Your task to perform on an android device: Show me popular games on the Play Store Image 0: 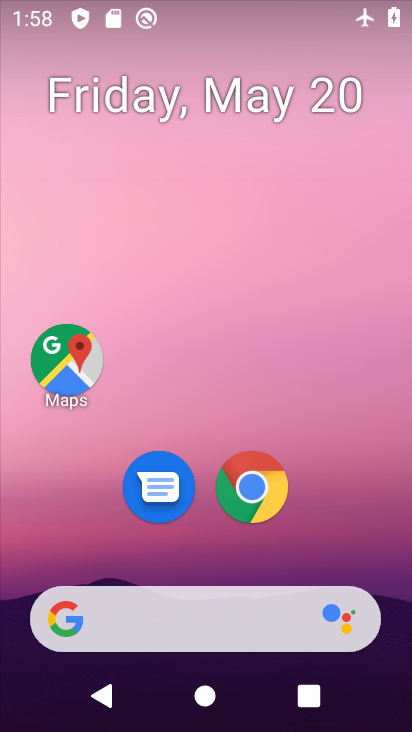
Step 0: drag from (362, 702) to (186, 280)
Your task to perform on an android device: Show me popular games on the Play Store Image 1: 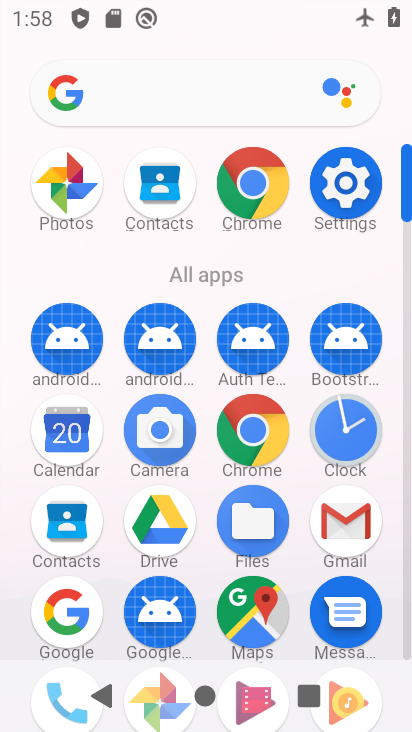
Step 1: drag from (205, 625) to (213, 150)
Your task to perform on an android device: Show me popular games on the Play Store Image 2: 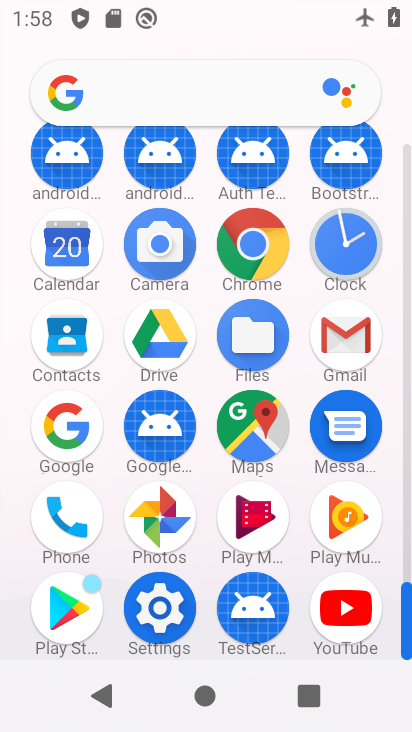
Step 2: drag from (210, 419) to (152, 170)
Your task to perform on an android device: Show me popular games on the Play Store Image 3: 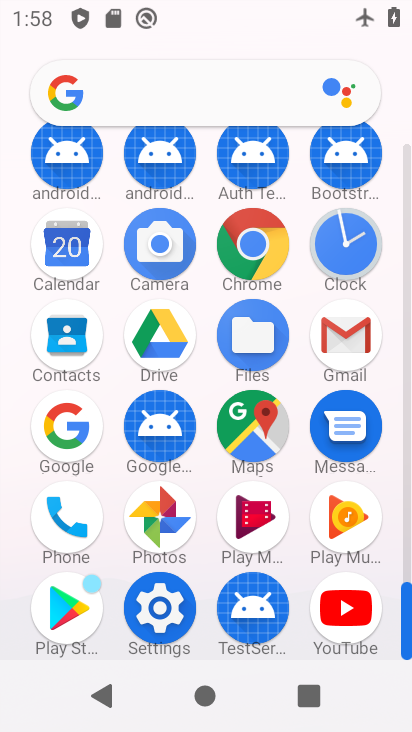
Step 3: click (78, 605)
Your task to perform on an android device: Show me popular games on the Play Store Image 4: 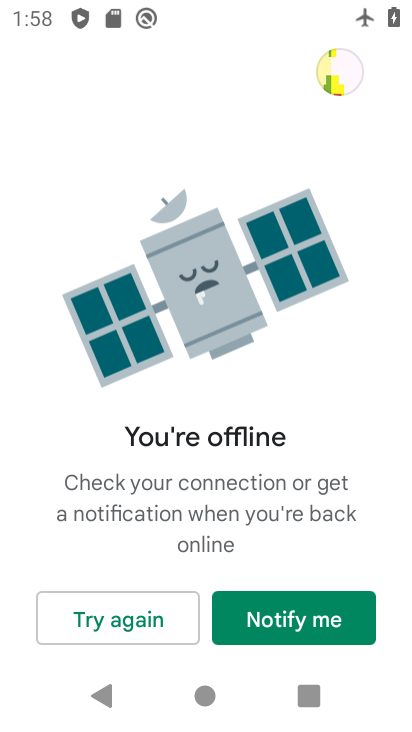
Step 4: click (294, 619)
Your task to perform on an android device: Show me popular games on the Play Store Image 5: 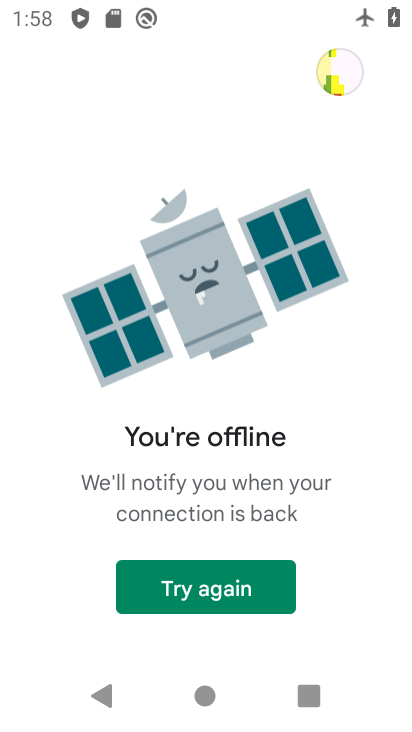
Step 5: click (231, 584)
Your task to perform on an android device: Show me popular games on the Play Store Image 6: 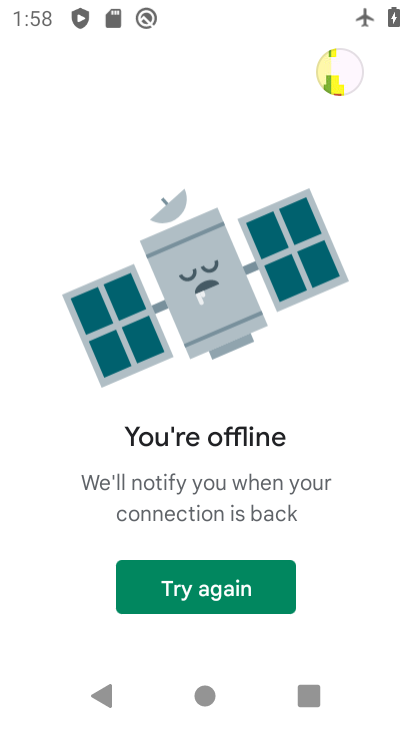
Step 6: click (203, 306)
Your task to perform on an android device: Show me popular games on the Play Store Image 7: 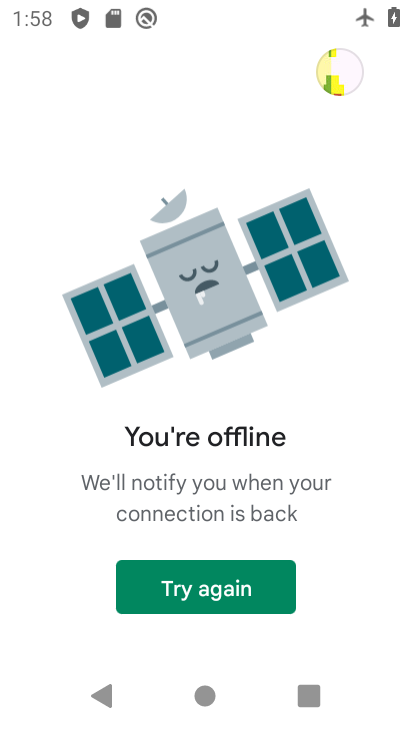
Step 7: task complete